Your task to perform on an android device: find which apps use the phone's location Image 0: 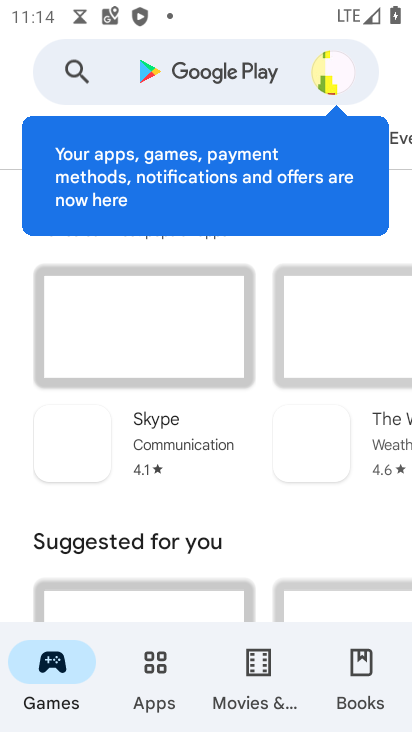
Step 0: press home button
Your task to perform on an android device: find which apps use the phone's location Image 1: 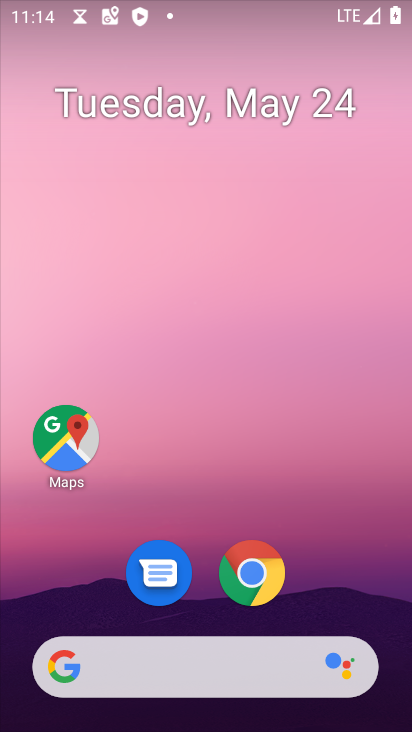
Step 1: drag from (51, 640) to (167, 183)
Your task to perform on an android device: find which apps use the phone's location Image 2: 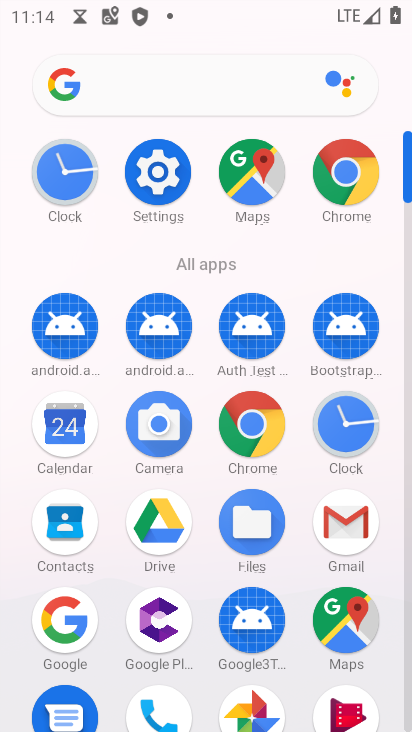
Step 2: drag from (140, 621) to (226, 322)
Your task to perform on an android device: find which apps use the phone's location Image 3: 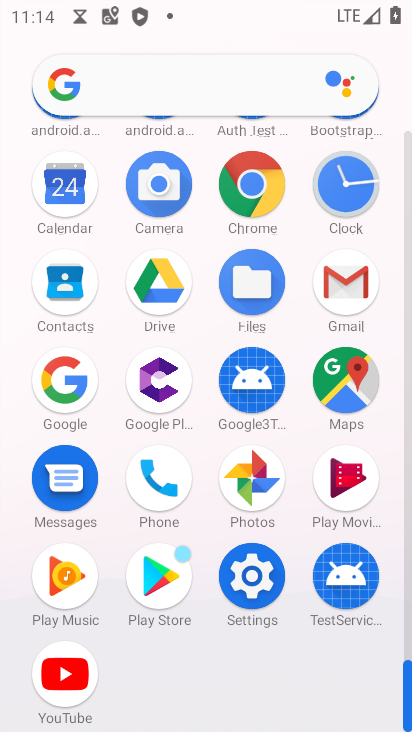
Step 3: click (245, 581)
Your task to perform on an android device: find which apps use the phone's location Image 4: 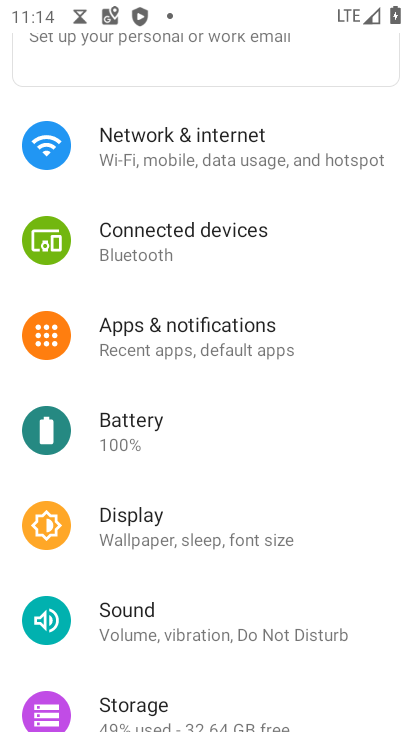
Step 4: drag from (92, 626) to (200, 221)
Your task to perform on an android device: find which apps use the phone's location Image 5: 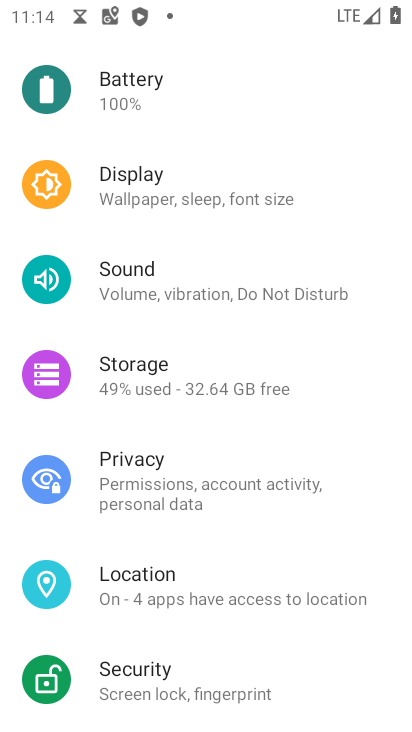
Step 5: click (158, 594)
Your task to perform on an android device: find which apps use the phone's location Image 6: 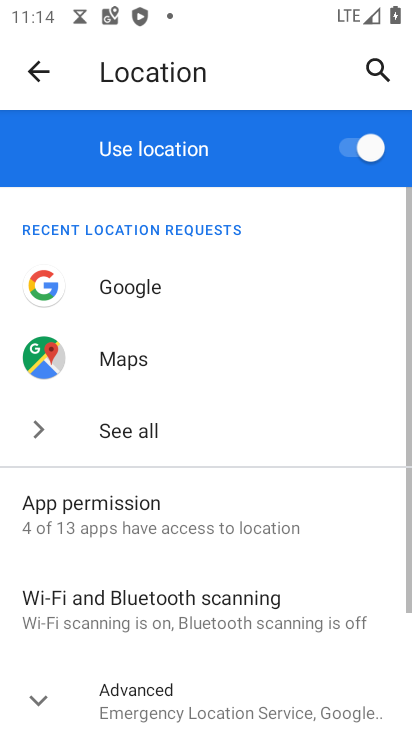
Step 6: click (159, 523)
Your task to perform on an android device: find which apps use the phone's location Image 7: 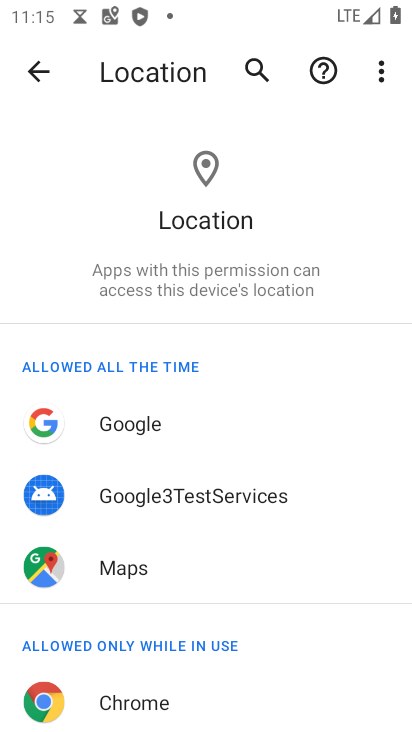
Step 7: task complete